Your task to perform on an android device: turn on airplane mode Image 0: 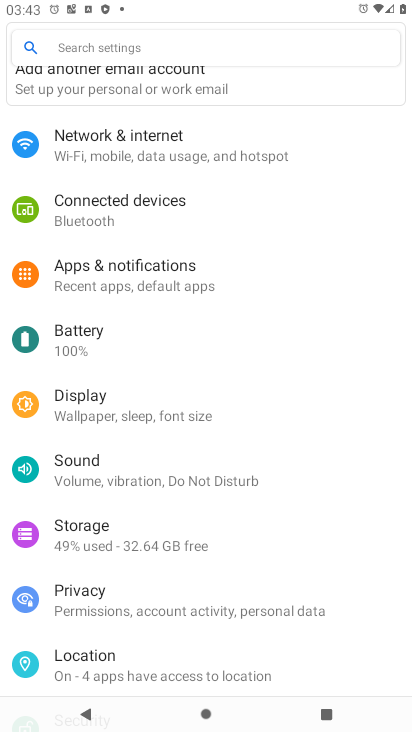
Step 0: click (120, 144)
Your task to perform on an android device: turn on airplane mode Image 1: 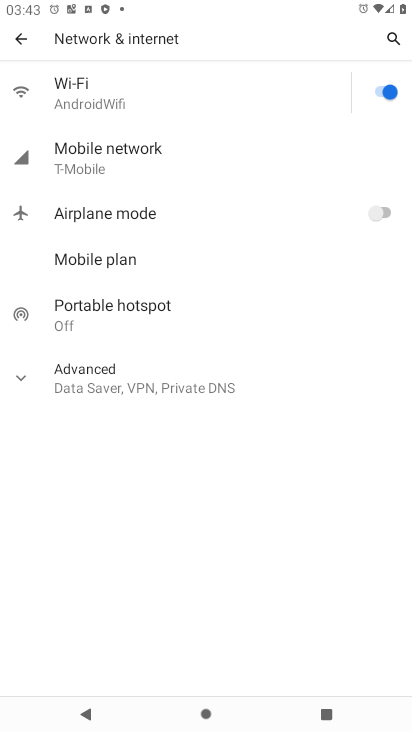
Step 1: click (381, 213)
Your task to perform on an android device: turn on airplane mode Image 2: 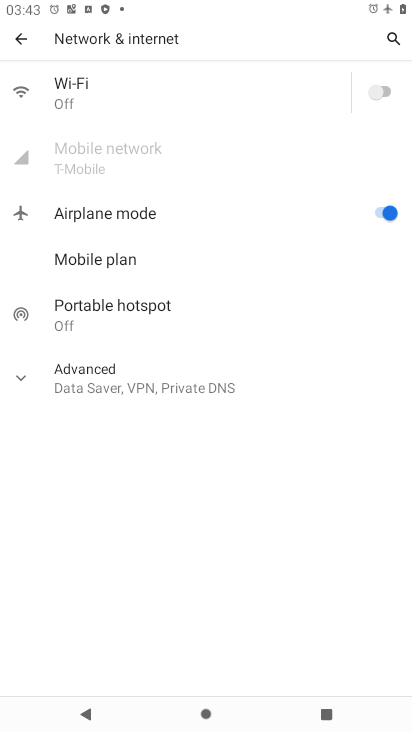
Step 2: task complete